Your task to perform on an android device: open app "Expedia: Hotels, Flights & Car" (install if not already installed) and go to login screen Image 0: 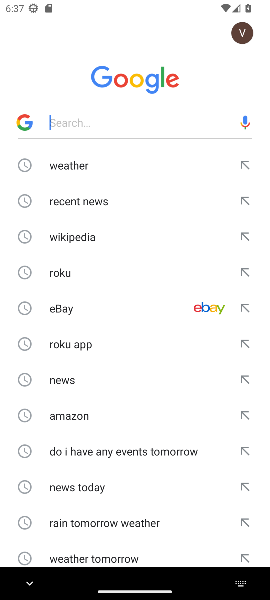
Step 0: press home button
Your task to perform on an android device: open app "Expedia: Hotels, Flights & Car" (install if not already installed) and go to login screen Image 1: 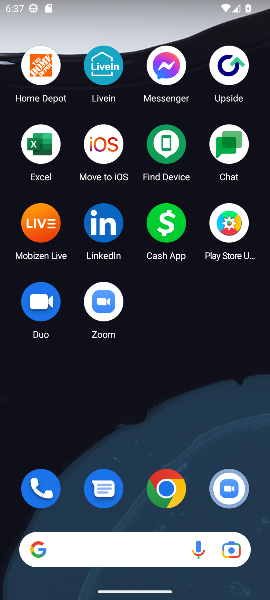
Step 1: drag from (131, 517) to (147, 8)
Your task to perform on an android device: open app "Expedia: Hotels, Flights & Car" (install if not already installed) and go to login screen Image 2: 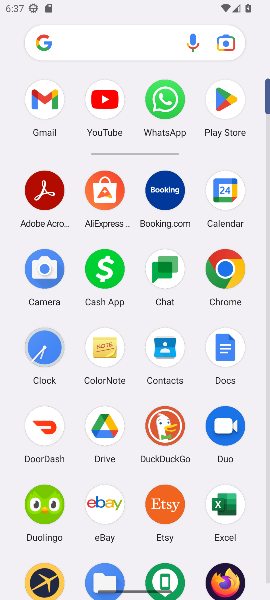
Step 2: click (214, 91)
Your task to perform on an android device: open app "Expedia: Hotels, Flights & Car" (install if not already installed) and go to login screen Image 3: 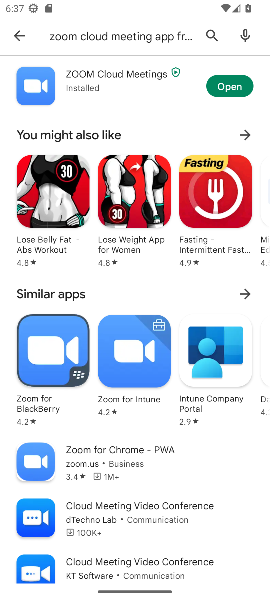
Step 3: click (207, 42)
Your task to perform on an android device: open app "Expedia: Hotels, Flights & Car" (install if not already installed) and go to login screen Image 4: 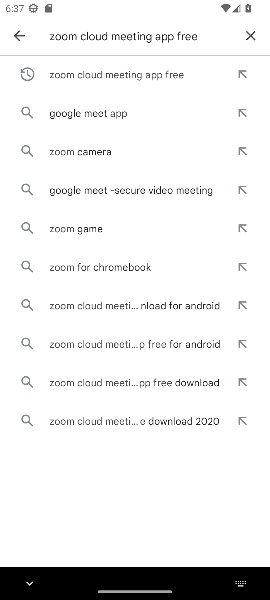
Step 4: click (250, 42)
Your task to perform on an android device: open app "Expedia: Hotels, Flights & Car" (install if not already installed) and go to login screen Image 5: 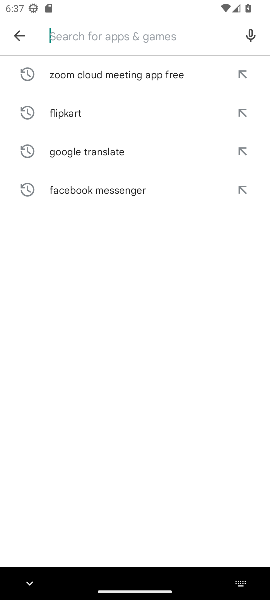
Step 5: type "expedia"
Your task to perform on an android device: open app "Expedia: Hotels, Flights & Car" (install if not already installed) and go to login screen Image 6: 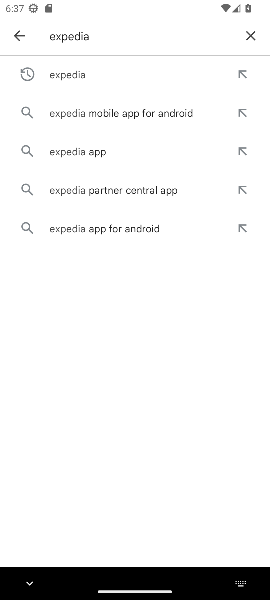
Step 6: click (49, 80)
Your task to perform on an android device: open app "Expedia: Hotels, Flights & Car" (install if not already installed) and go to login screen Image 7: 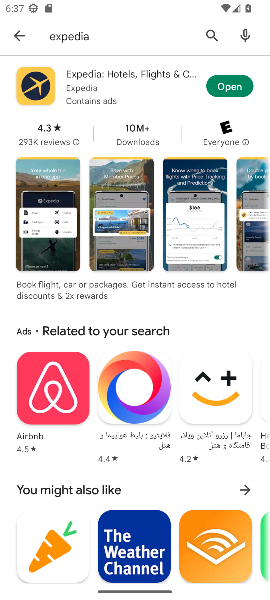
Step 7: click (219, 85)
Your task to perform on an android device: open app "Expedia: Hotels, Flights & Car" (install if not already installed) and go to login screen Image 8: 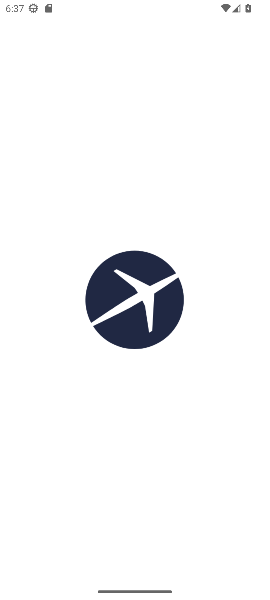
Step 8: task complete